Your task to perform on an android device: turn on wifi Image 0: 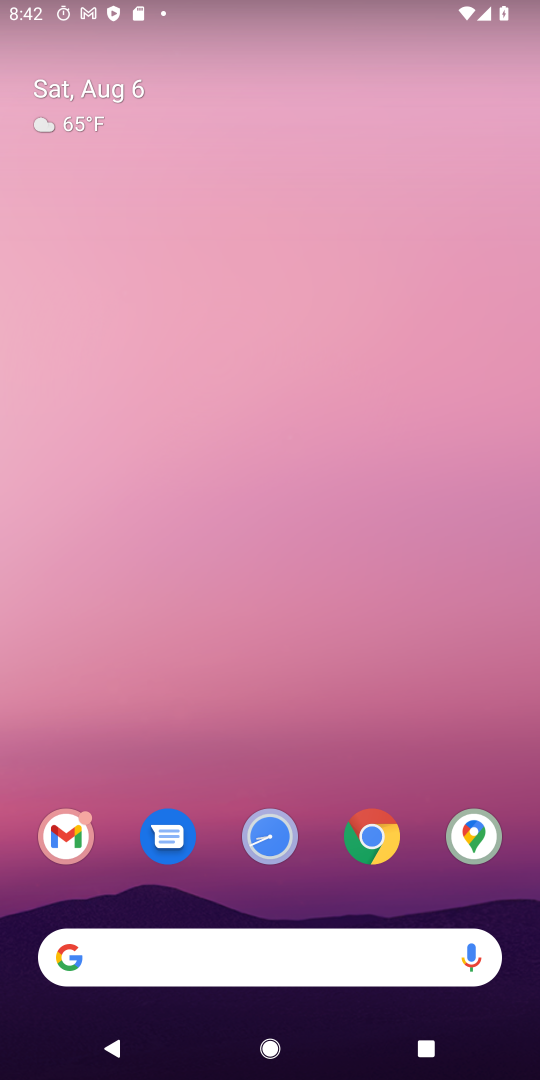
Step 0: drag from (371, 653) to (220, 131)
Your task to perform on an android device: turn on wifi Image 1: 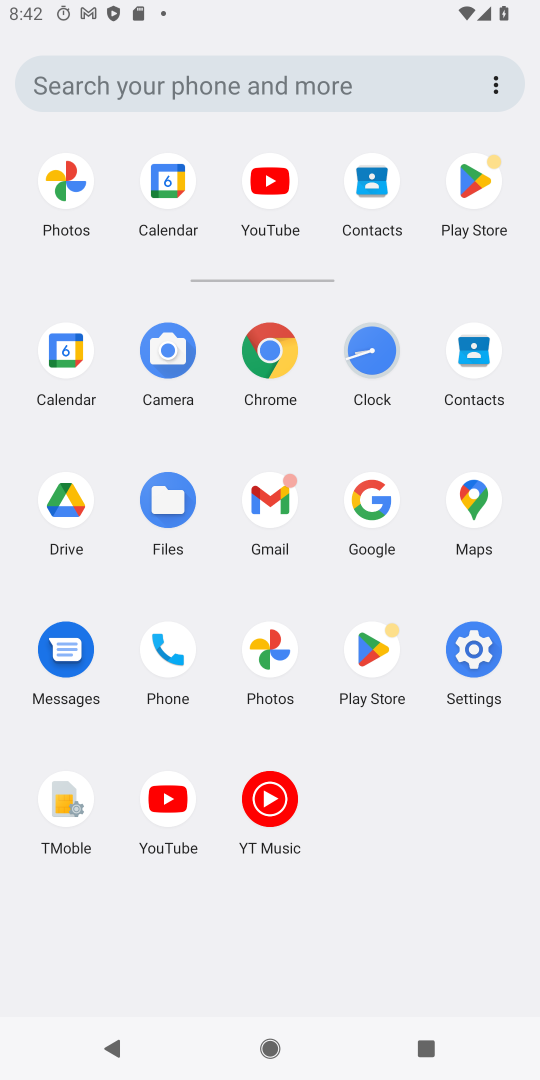
Step 1: task complete